Your task to perform on an android device: Do I have any events today? Image 0: 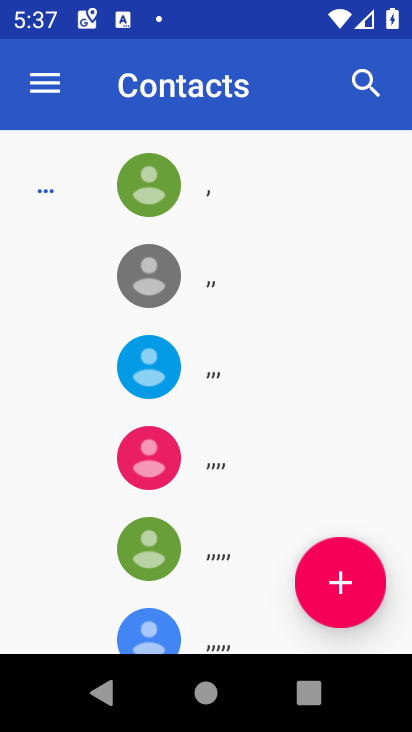
Step 0: press home button
Your task to perform on an android device: Do I have any events today? Image 1: 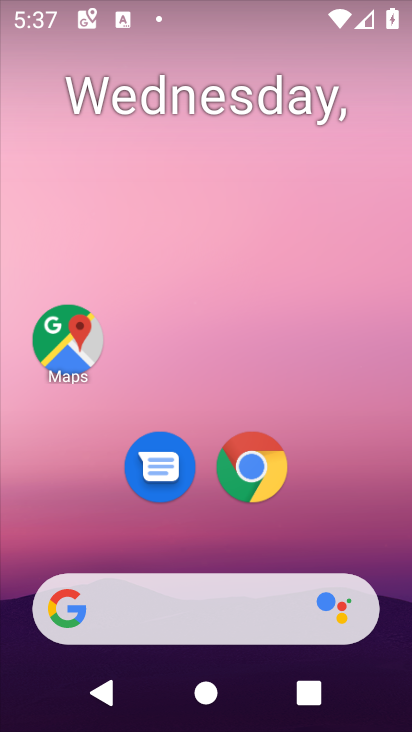
Step 1: drag from (346, 530) to (256, 65)
Your task to perform on an android device: Do I have any events today? Image 2: 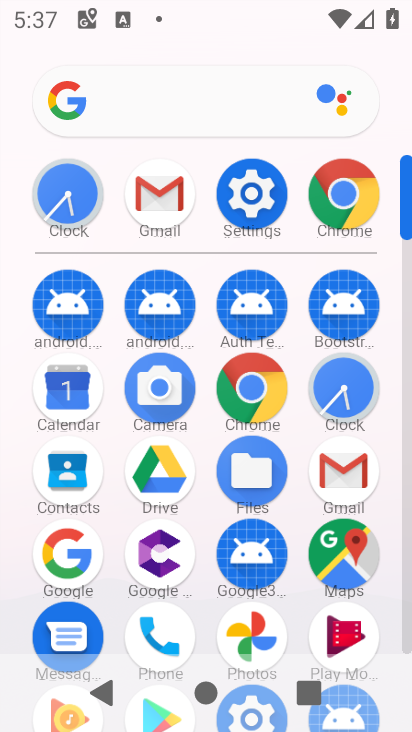
Step 2: click (70, 412)
Your task to perform on an android device: Do I have any events today? Image 3: 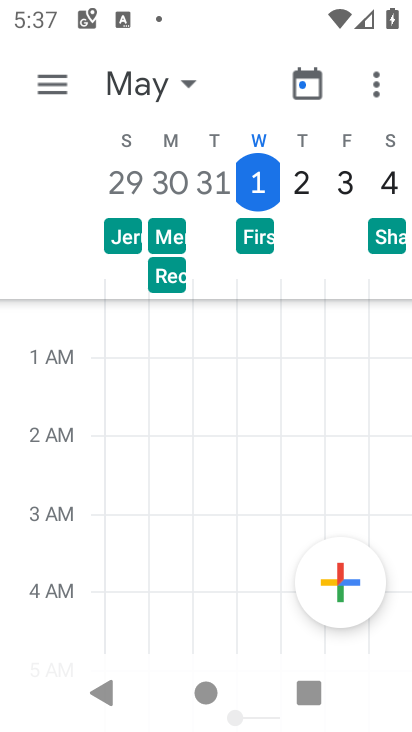
Step 3: click (171, 84)
Your task to perform on an android device: Do I have any events today? Image 4: 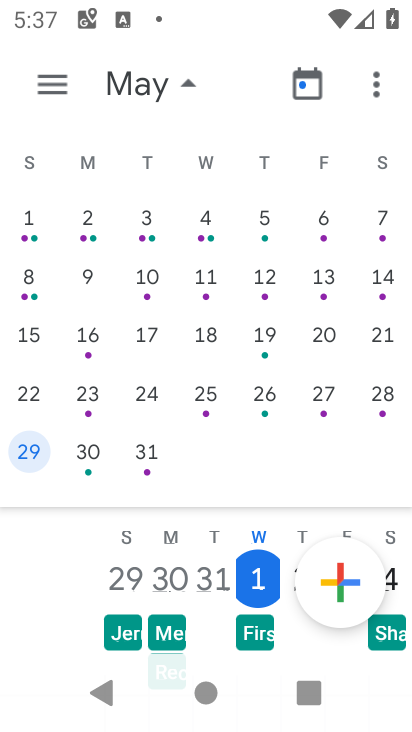
Step 4: drag from (32, 607) to (1, 6)
Your task to perform on an android device: Do I have any events today? Image 5: 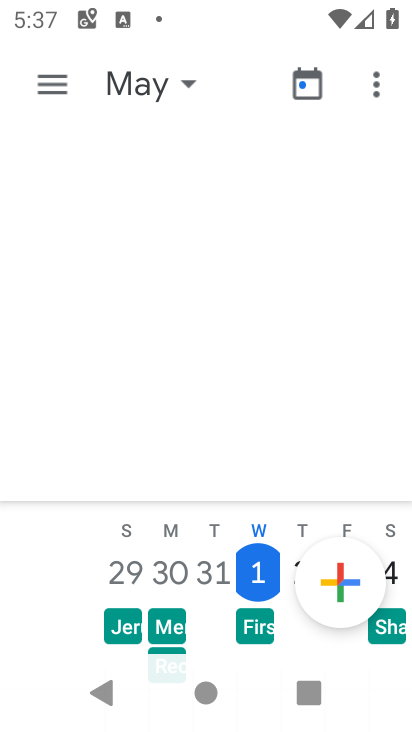
Step 5: click (188, 76)
Your task to perform on an android device: Do I have any events today? Image 6: 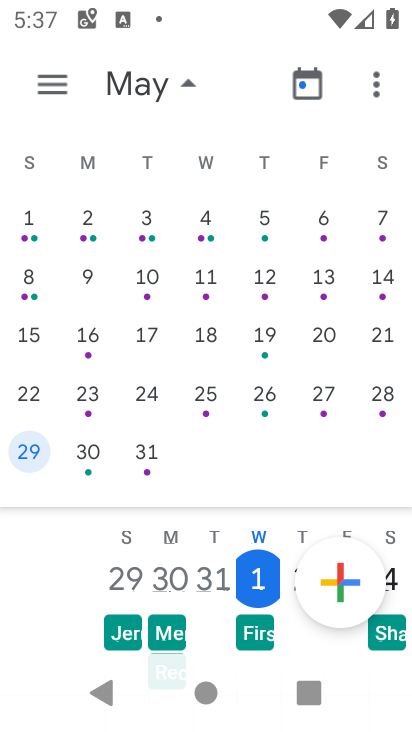
Step 6: task complete